Your task to perform on an android device: turn off data saver in the chrome app Image 0: 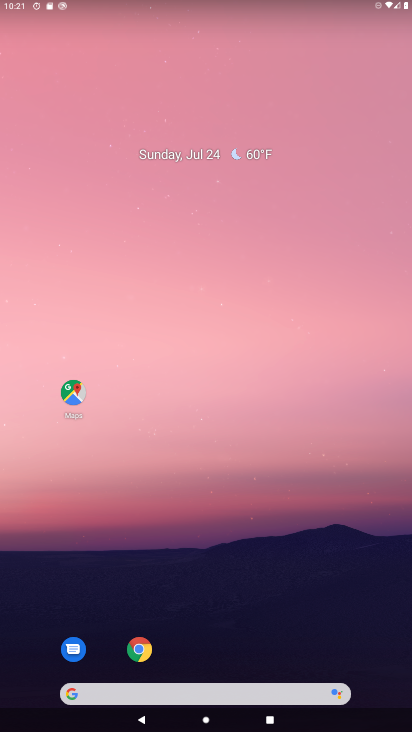
Step 0: drag from (333, 596) to (247, 123)
Your task to perform on an android device: turn off data saver in the chrome app Image 1: 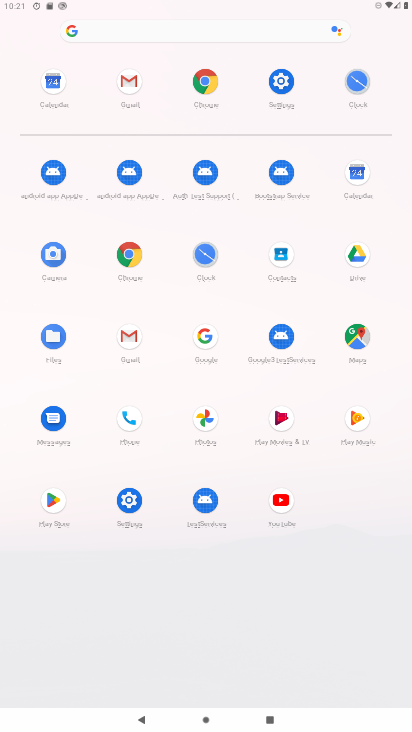
Step 1: click (131, 255)
Your task to perform on an android device: turn off data saver in the chrome app Image 2: 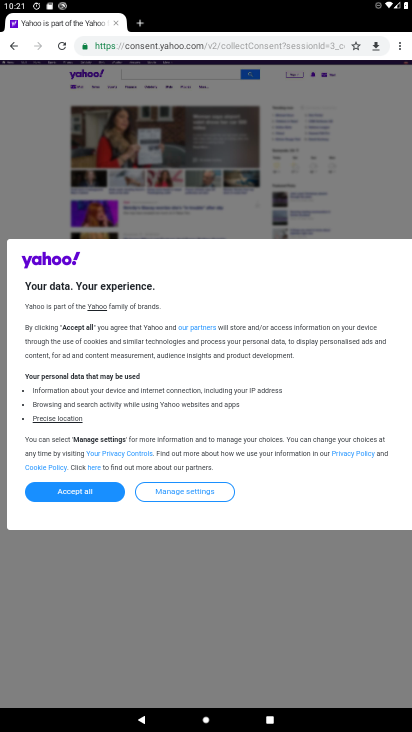
Step 2: drag from (406, 48) to (303, 336)
Your task to perform on an android device: turn off data saver in the chrome app Image 3: 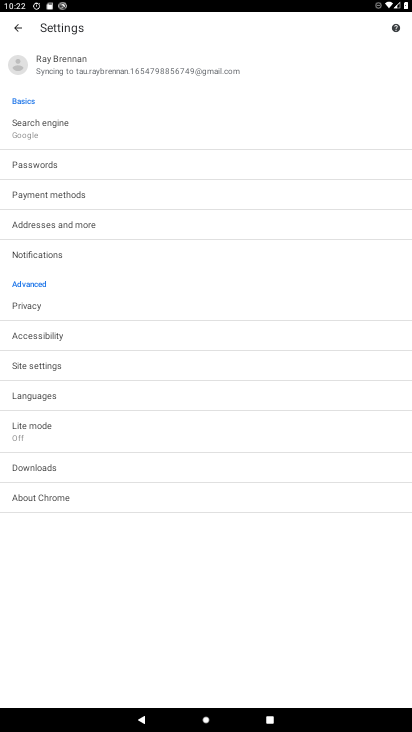
Step 3: click (55, 440)
Your task to perform on an android device: turn off data saver in the chrome app Image 4: 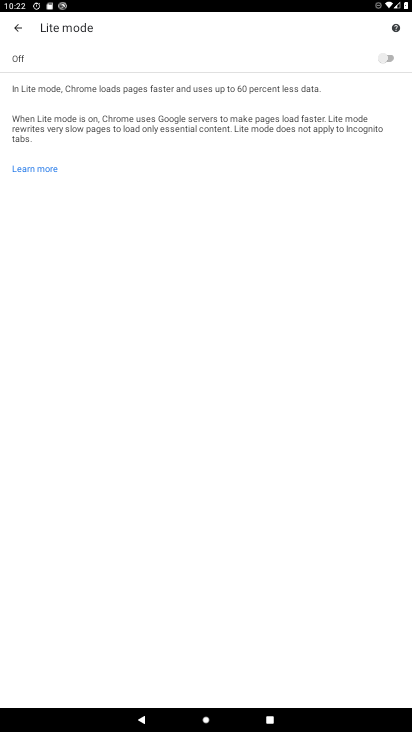
Step 4: task complete